Your task to perform on an android device: turn on the 12-hour format for clock Image 0: 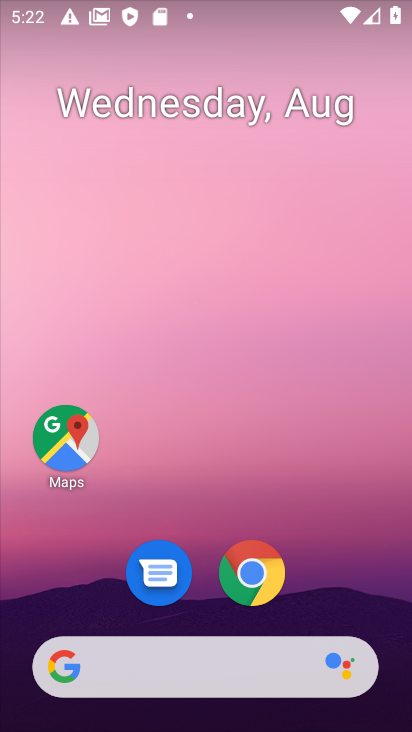
Step 0: drag from (388, 613) to (313, 76)
Your task to perform on an android device: turn on the 12-hour format for clock Image 1: 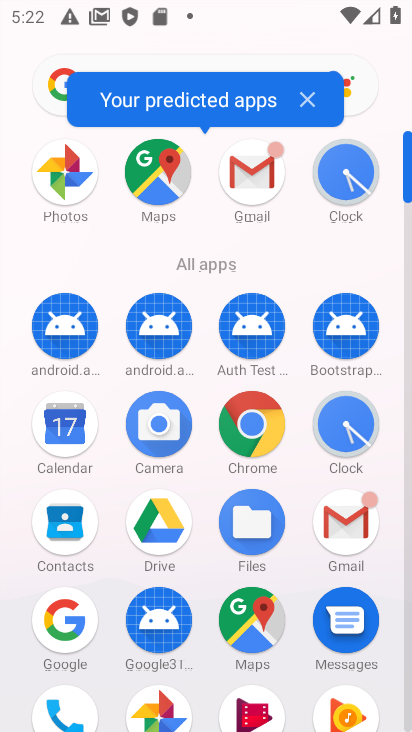
Step 1: click (340, 181)
Your task to perform on an android device: turn on the 12-hour format for clock Image 2: 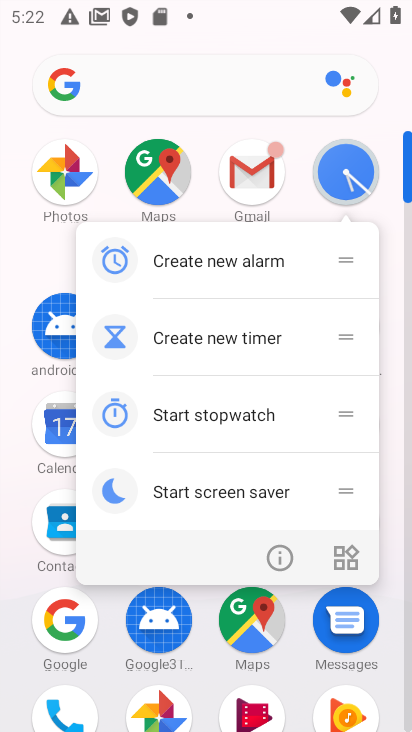
Step 2: click (343, 180)
Your task to perform on an android device: turn on the 12-hour format for clock Image 3: 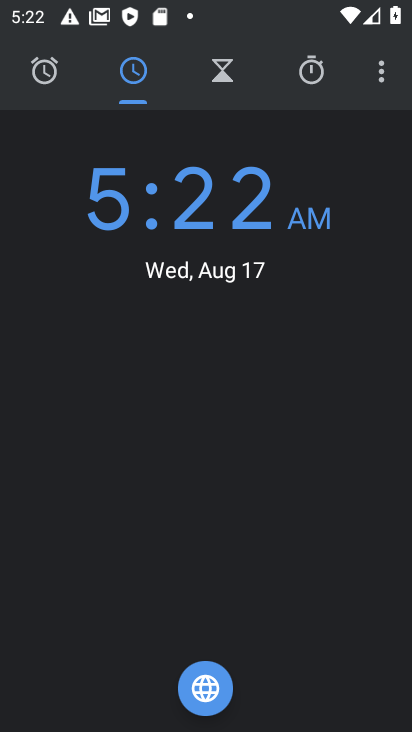
Step 3: click (374, 83)
Your task to perform on an android device: turn on the 12-hour format for clock Image 4: 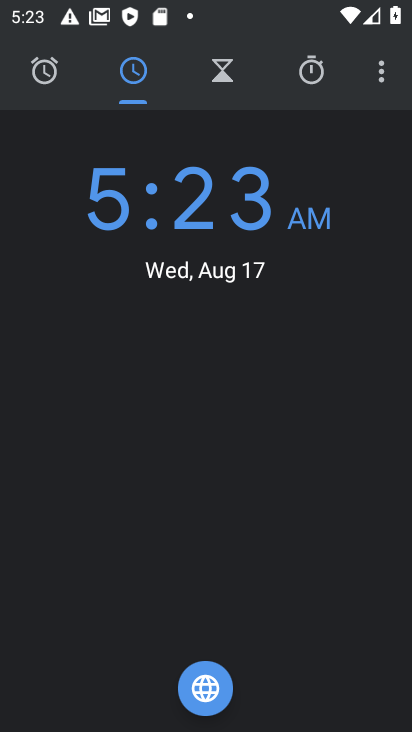
Step 4: click (385, 74)
Your task to perform on an android device: turn on the 12-hour format for clock Image 5: 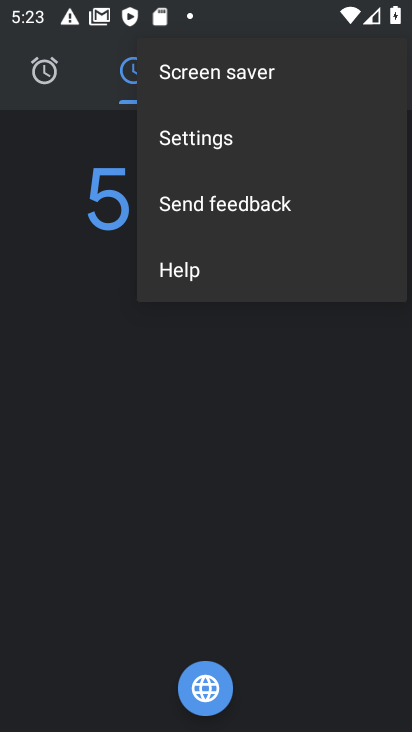
Step 5: click (200, 157)
Your task to perform on an android device: turn on the 12-hour format for clock Image 6: 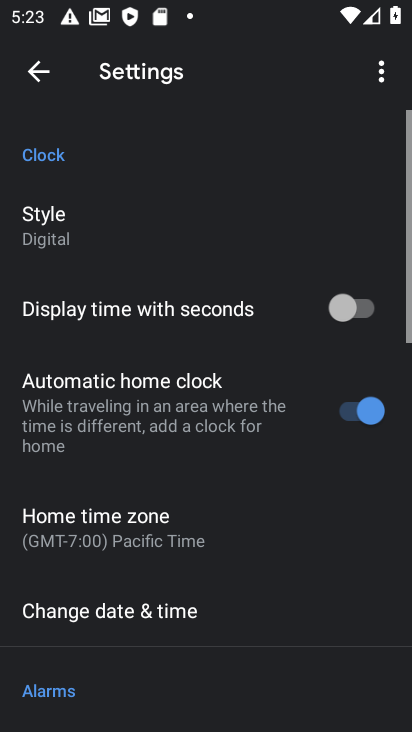
Step 6: drag from (228, 526) to (267, 89)
Your task to perform on an android device: turn on the 12-hour format for clock Image 7: 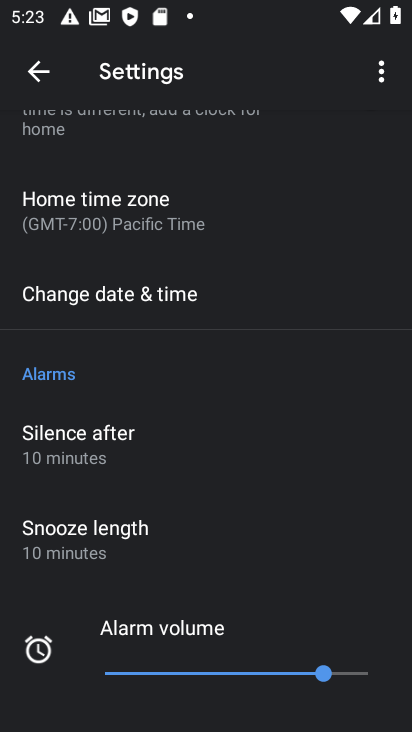
Step 7: click (109, 304)
Your task to perform on an android device: turn on the 12-hour format for clock Image 8: 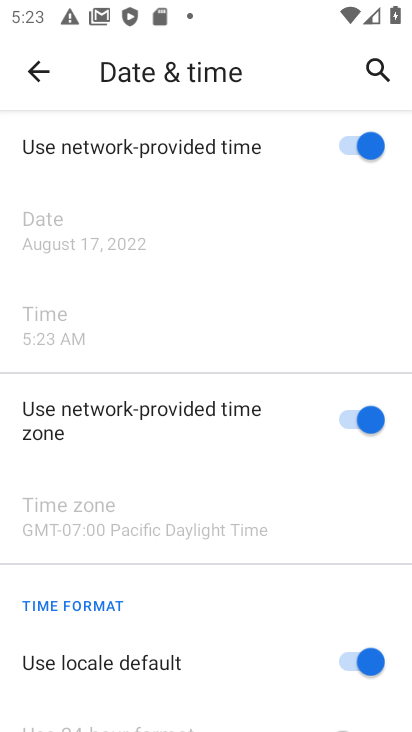
Step 8: task complete